Your task to perform on an android device: Open calendar and show me the second week of next month Image 0: 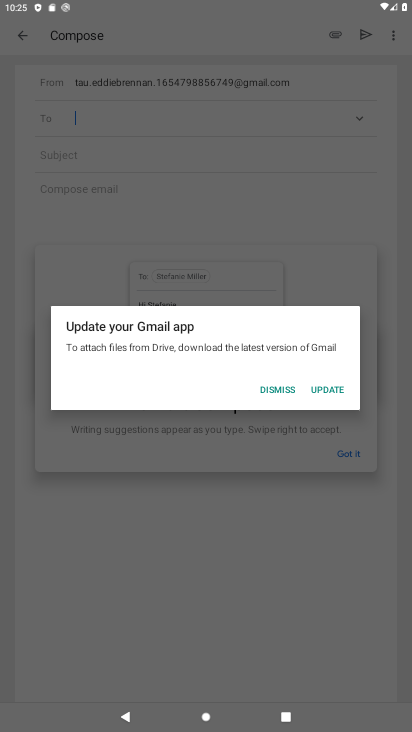
Step 0: click (271, 383)
Your task to perform on an android device: Open calendar and show me the second week of next month Image 1: 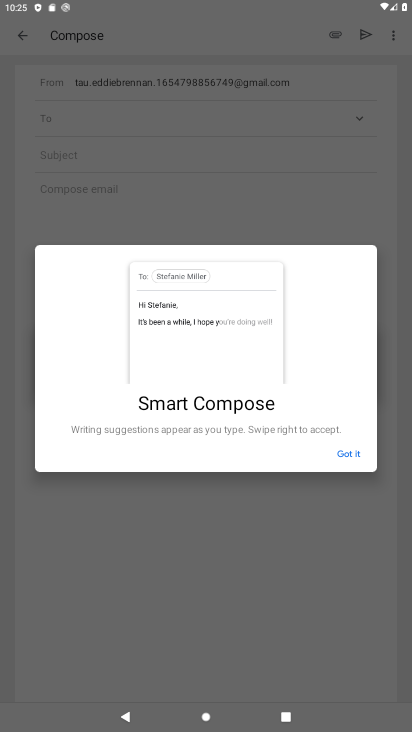
Step 1: click (352, 462)
Your task to perform on an android device: Open calendar and show me the second week of next month Image 2: 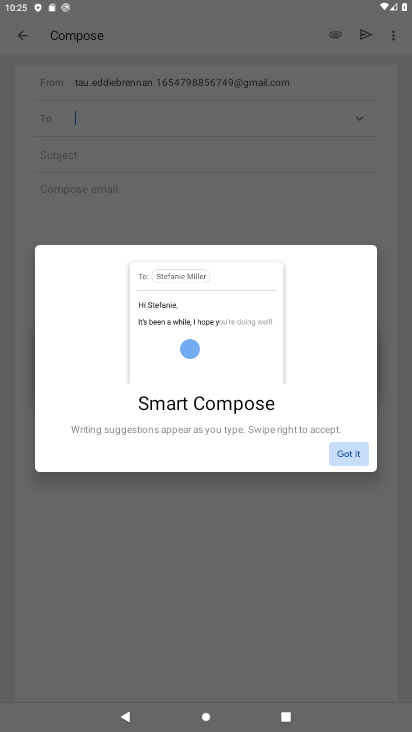
Step 2: click (349, 455)
Your task to perform on an android device: Open calendar and show me the second week of next month Image 3: 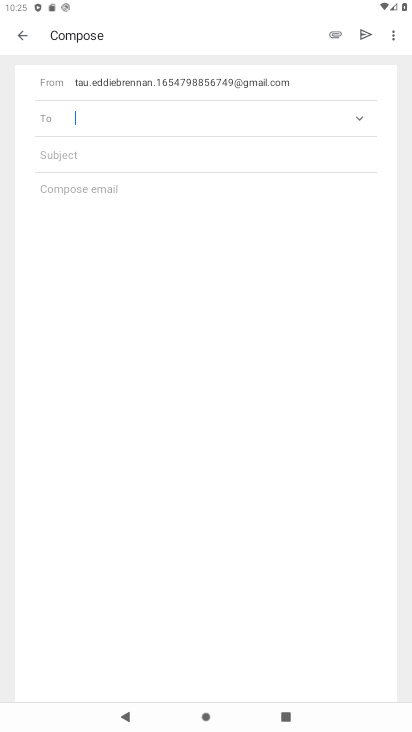
Step 3: click (31, 46)
Your task to perform on an android device: Open calendar and show me the second week of next month Image 4: 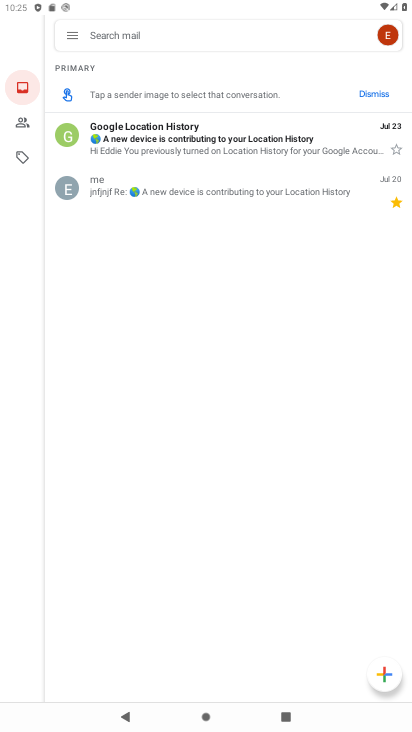
Step 4: press back button
Your task to perform on an android device: Open calendar and show me the second week of next month Image 5: 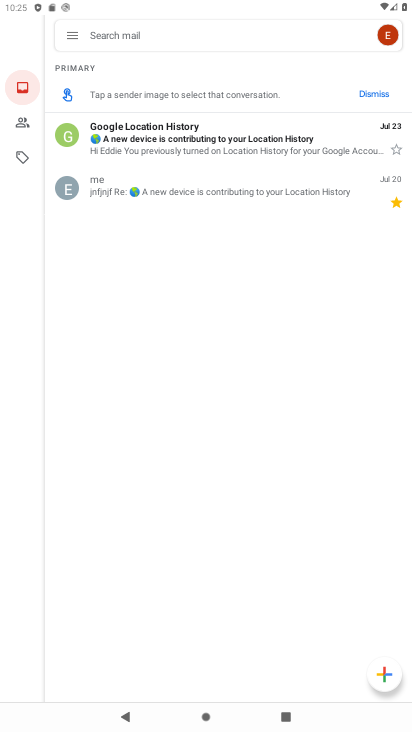
Step 5: press back button
Your task to perform on an android device: Open calendar and show me the second week of next month Image 6: 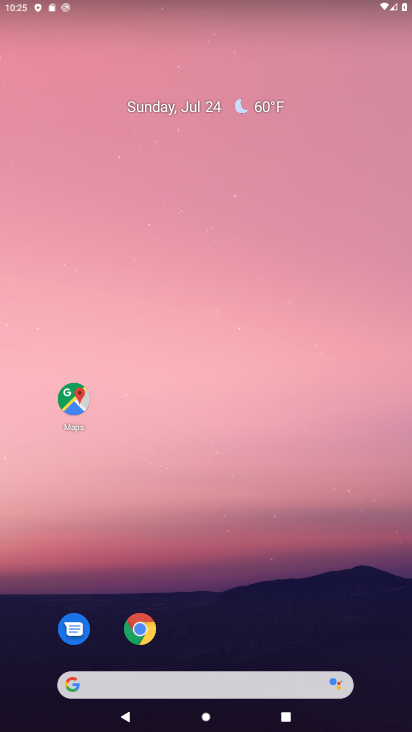
Step 6: drag from (202, 530) to (148, 74)
Your task to perform on an android device: Open calendar and show me the second week of next month Image 7: 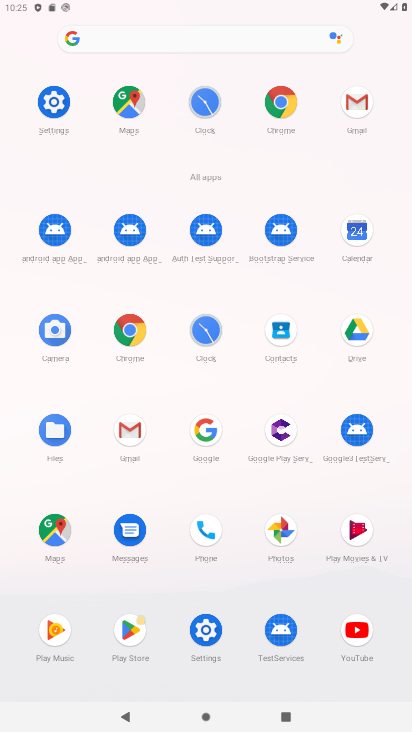
Step 7: click (348, 257)
Your task to perform on an android device: Open calendar and show me the second week of next month Image 8: 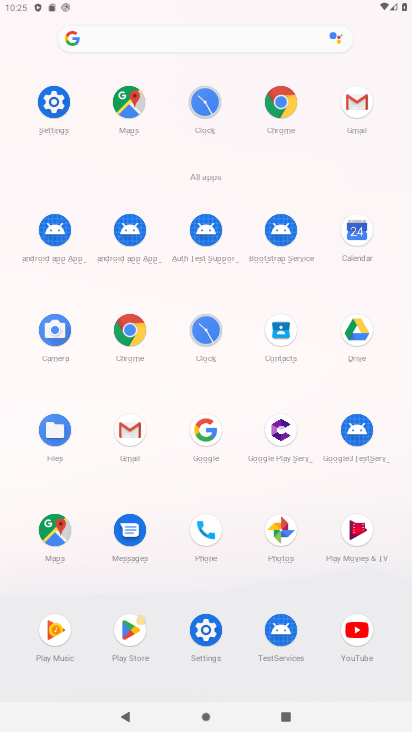
Step 8: click (355, 236)
Your task to perform on an android device: Open calendar and show me the second week of next month Image 9: 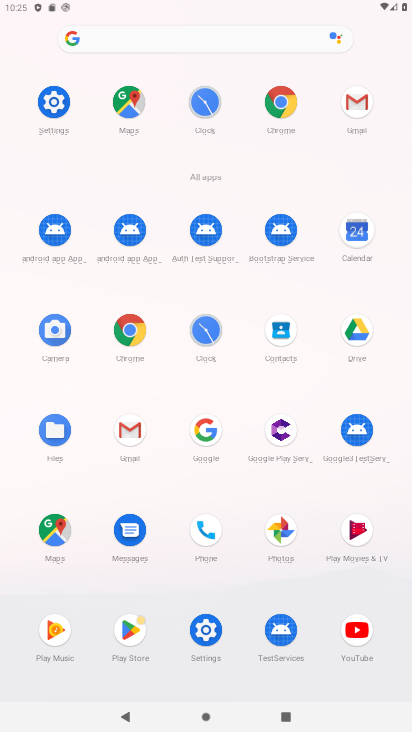
Step 9: click (356, 226)
Your task to perform on an android device: Open calendar and show me the second week of next month Image 10: 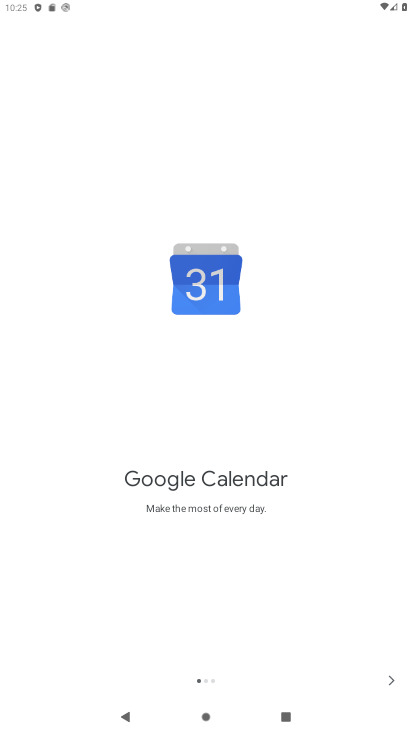
Step 10: click (385, 667)
Your task to perform on an android device: Open calendar and show me the second week of next month Image 11: 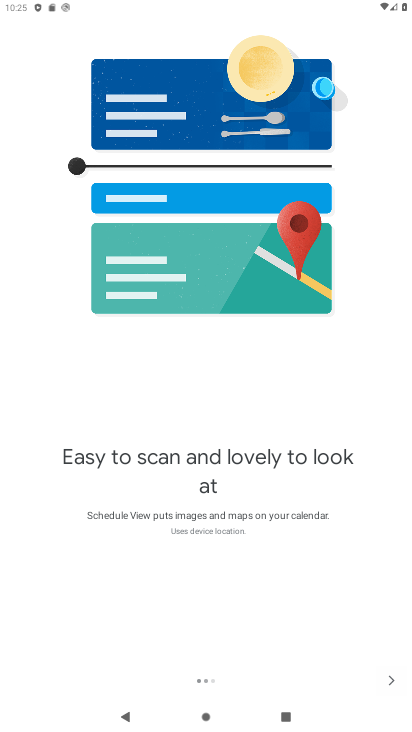
Step 11: click (389, 671)
Your task to perform on an android device: Open calendar and show me the second week of next month Image 12: 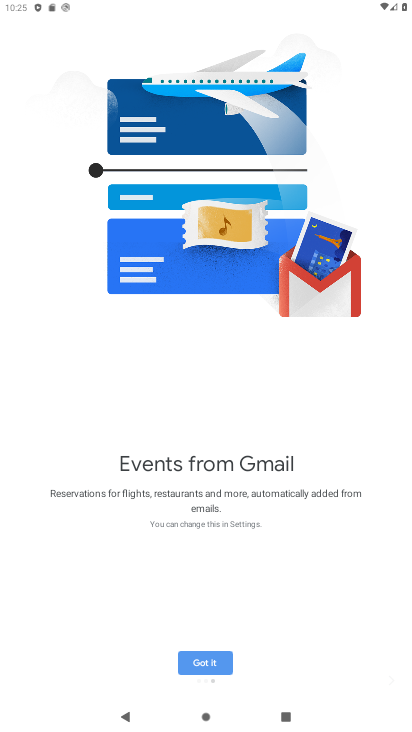
Step 12: click (390, 673)
Your task to perform on an android device: Open calendar and show me the second week of next month Image 13: 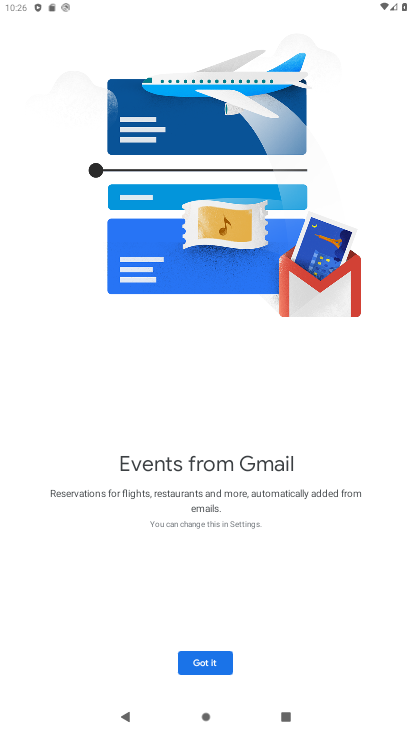
Step 13: click (216, 670)
Your task to perform on an android device: Open calendar and show me the second week of next month Image 14: 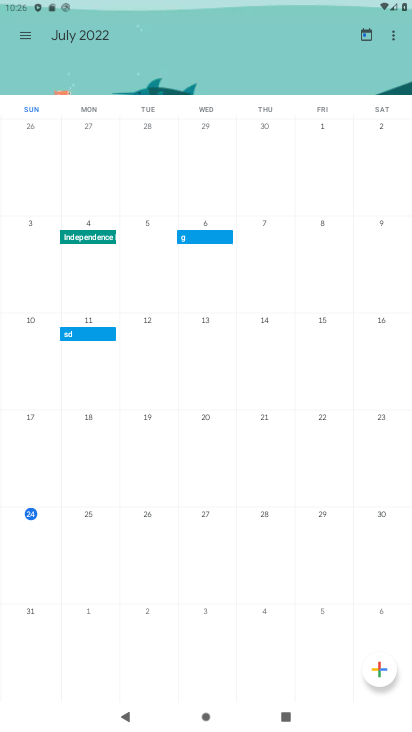
Step 14: drag from (318, 351) to (17, 406)
Your task to perform on an android device: Open calendar and show me the second week of next month Image 15: 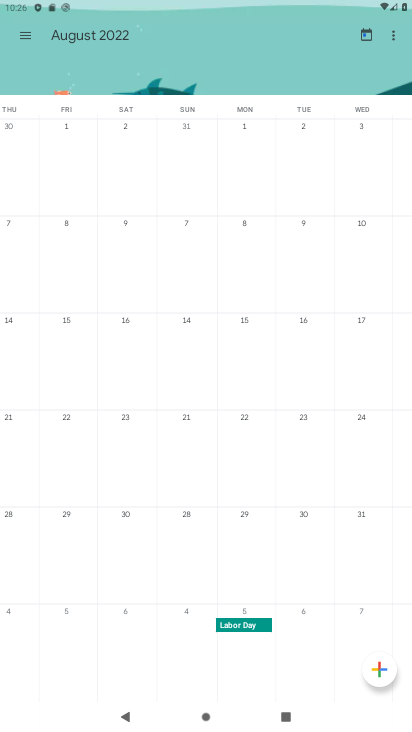
Step 15: drag from (355, 281) to (9, 331)
Your task to perform on an android device: Open calendar and show me the second week of next month Image 16: 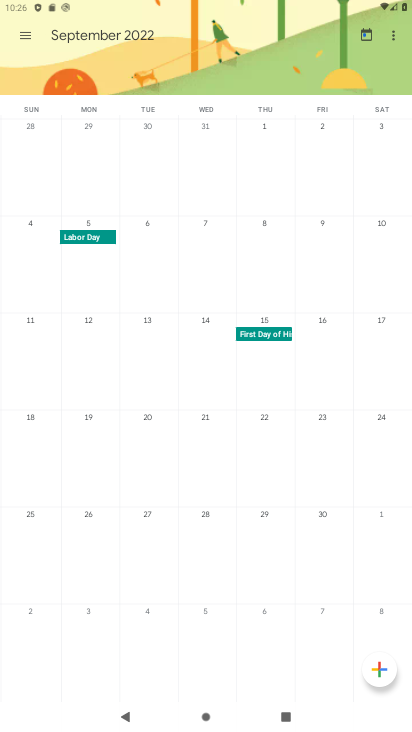
Step 16: drag from (164, 355) to (380, 327)
Your task to perform on an android device: Open calendar and show me the second week of next month Image 17: 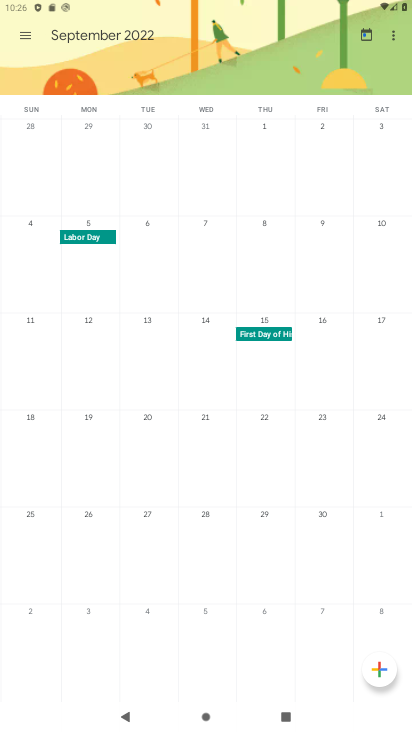
Step 17: drag from (96, 375) to (364, 357)
Your task to perform on an android device: Open calendar and show me the second week of next month Image 18: 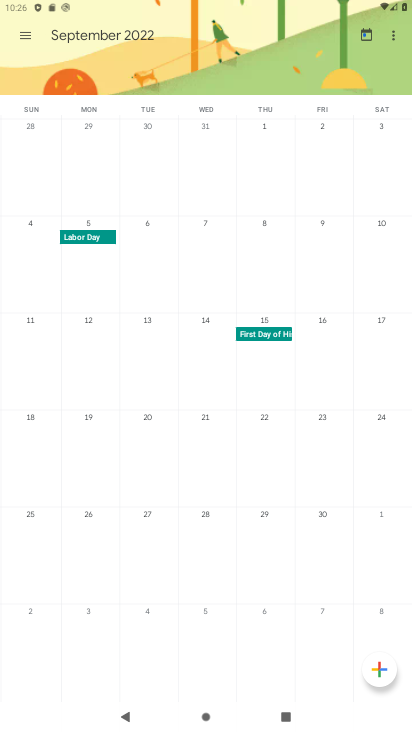
Step 18: click (406, 367)
Your task to perform on an android device: Open calendar and show me the second week of next month Image 19: 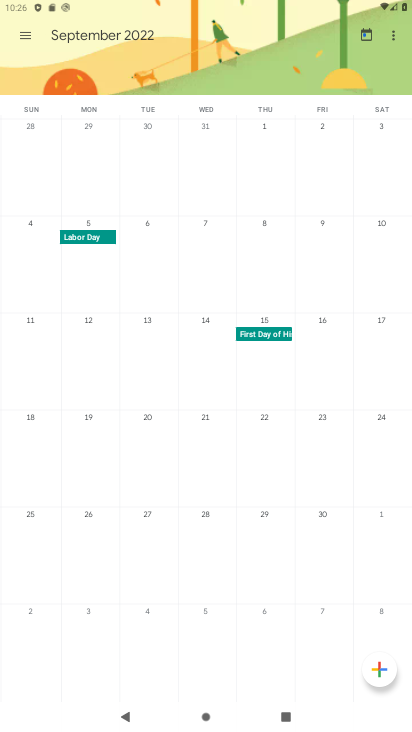
Step 19: drag from (74, 216) to (377, 357)
Your task to perform on an android device: Open calendar and show me the second week of next month Image 20: 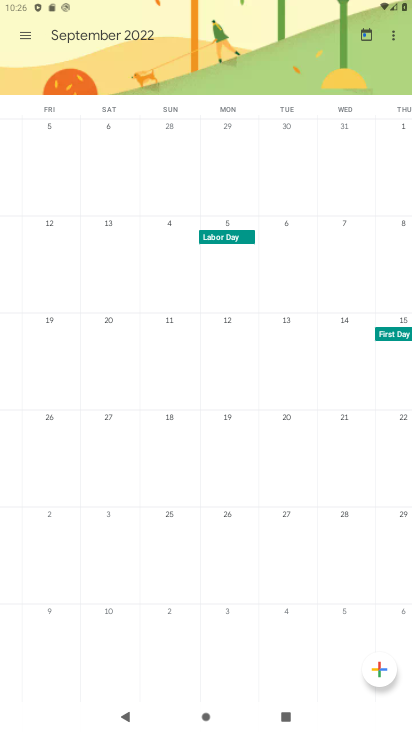
Step 20: drag from (299, 350) to (397, 361)
Your task to perform on an android device: Open calendar and show me the second week of next month Image 21: 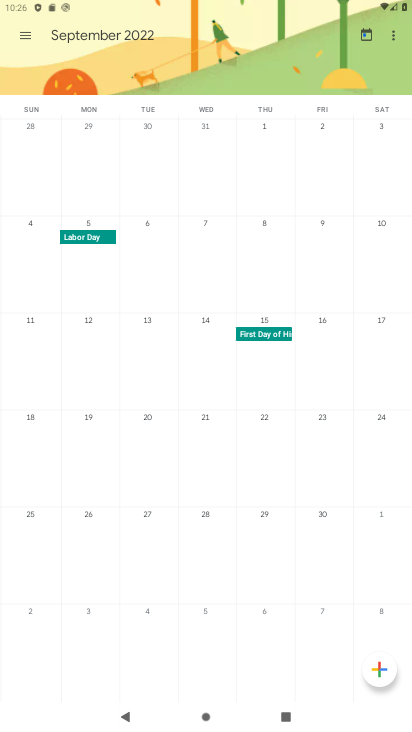
Step 21: drag from (240, 302) to (403, 318)
Your task to perform on an android device: Open calendar and show me the second week of next month Image 22: 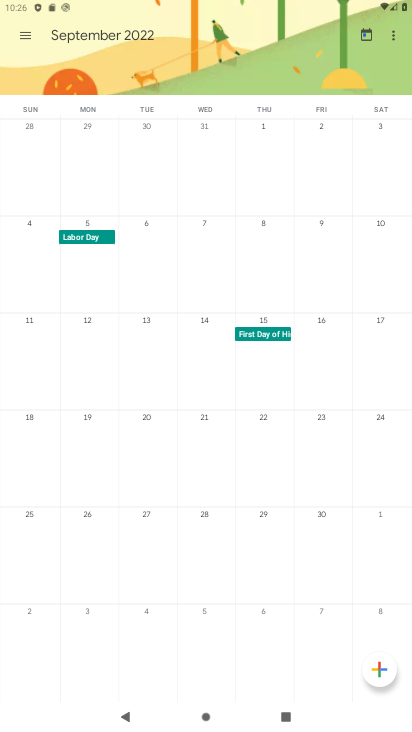
Step 22: drag from (43, 288) to (379, 357)
Your task to perform on an android device: Open calendar and show me the second week of next month Image 23: 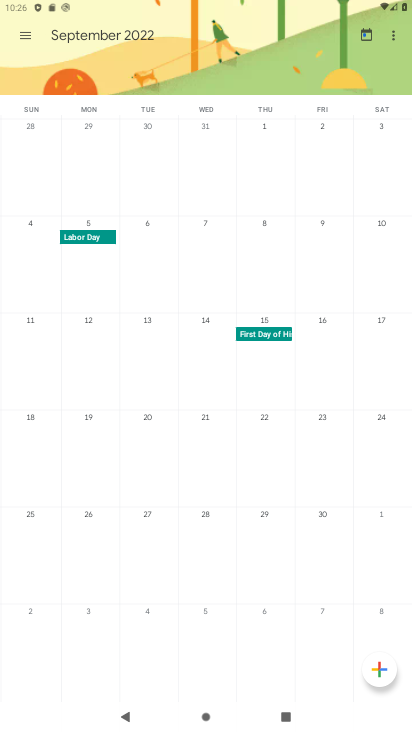
Step 23: drag from (230, 294) to (383, 327)
Your task to perform on an android device: Open calendar and show me the second week of next month Image 24: 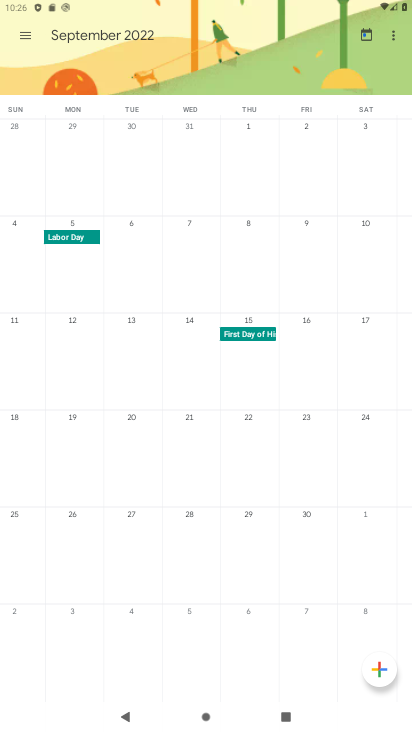
Step 24: drag from (185, 240) to (352, 251)
Your task to perform on an android device: Open calendar and show me the second week of next month Image 25: 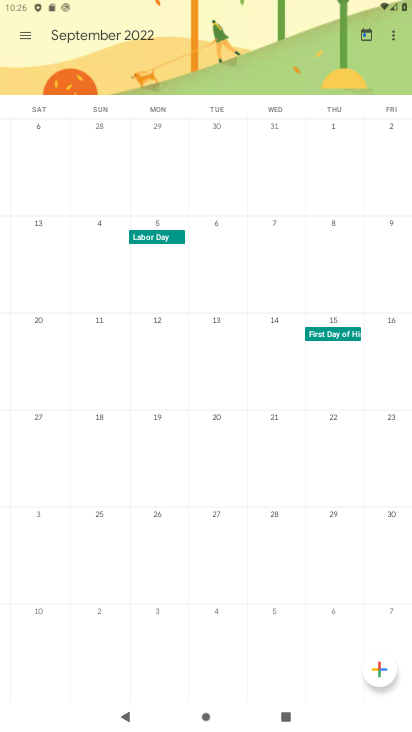
Step 25: drag from (84, 187) to (400, 224)
Your task to perform on an android device: Open calendar and show me the second week of next month Image 26: 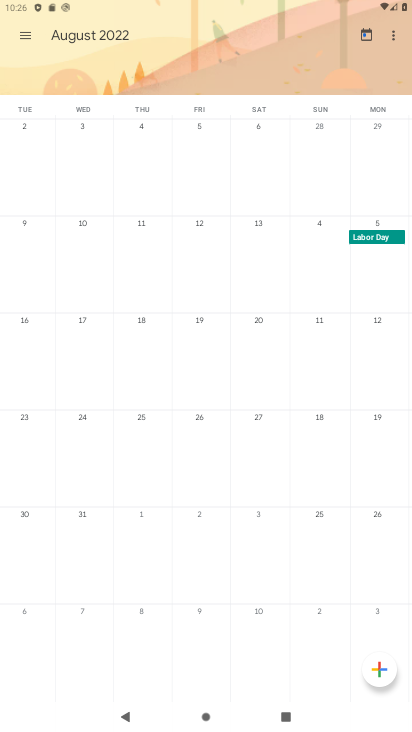
Step 26: drag from (73, 256) to (403, 366)
Your task to perform on an android device: Open calendar and show me the second week of next month Image 27: 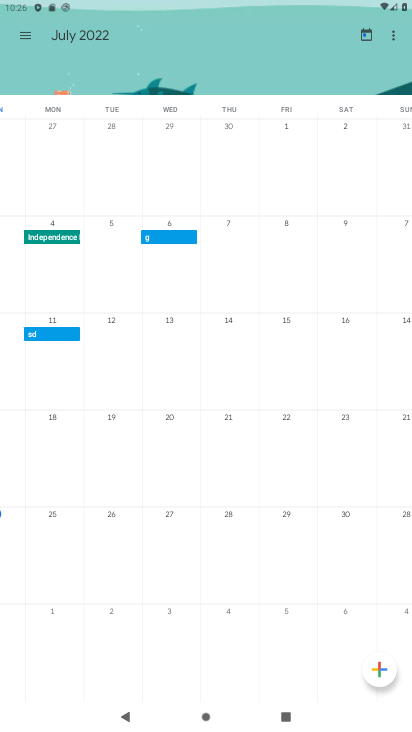
Step 27: drag from (405, 350) to (410, 272)
Your task to perform on an android device: Open calendar and show me the second week of next month Image 28: 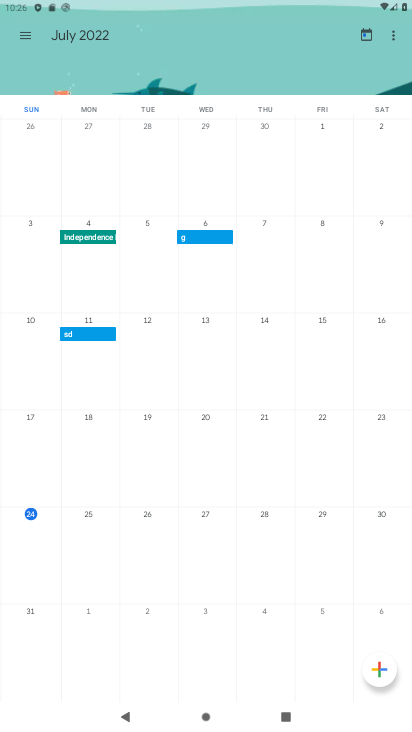
Step 28: click (23, 242)
Your task to perform on an android device: Open calendar and show me the second week of next month Image 29: 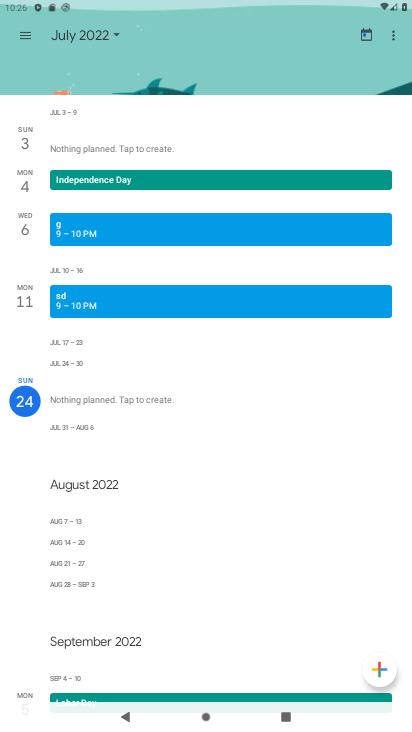
Step 29: click (111, 30)
Your task to perform on an android device: Open calendar and show me the second week of next month Image 30: 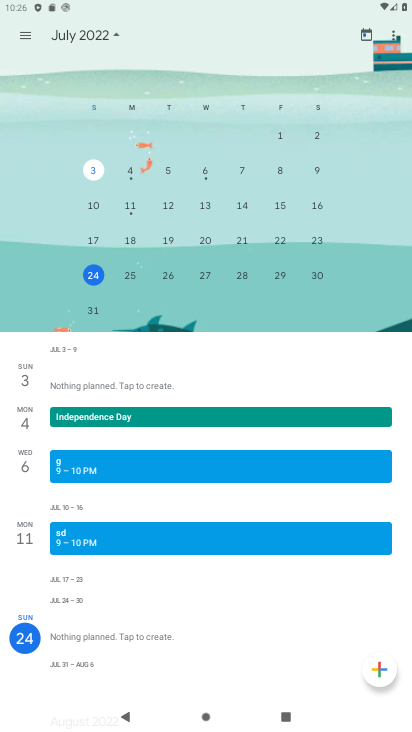
Step 30: drag from (260, 258) to (46, 319)
Your task to perform on an android device: Open calendar and show me the second week of next month Image 31: 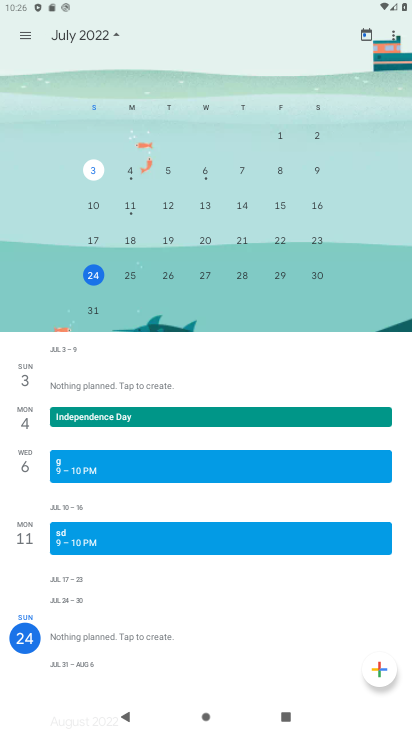
Step 31: drag from (81, 203) to (4, 169)
Your task to perform on an android device: Open calendar and show me the second week of next month Image 32: 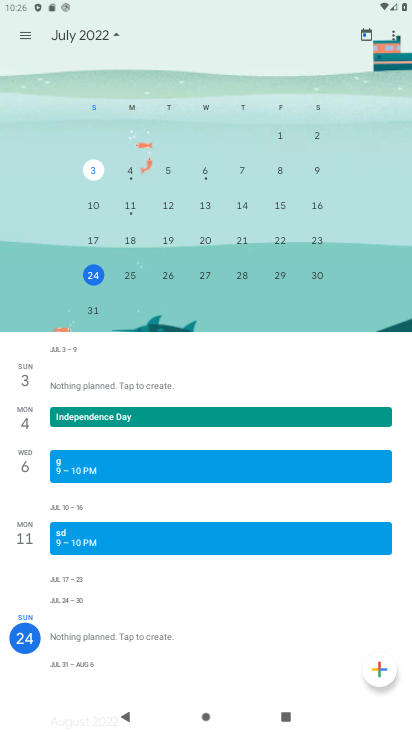
Step 32: drag from (197, 222) to (105, 153)
Your task to perform on an android device: Open calendar and show me the second week of next month Image 33: 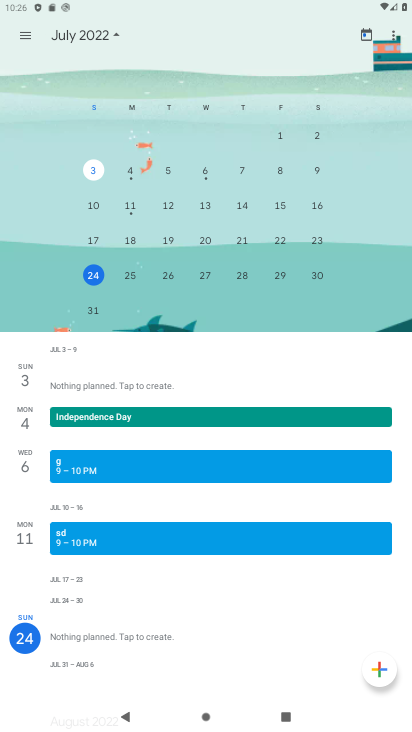
Step 33: drag from (231, 199) to (3, 158)
Your task to perform on an android device: Open calendar and show me the second week of next month Image 34: 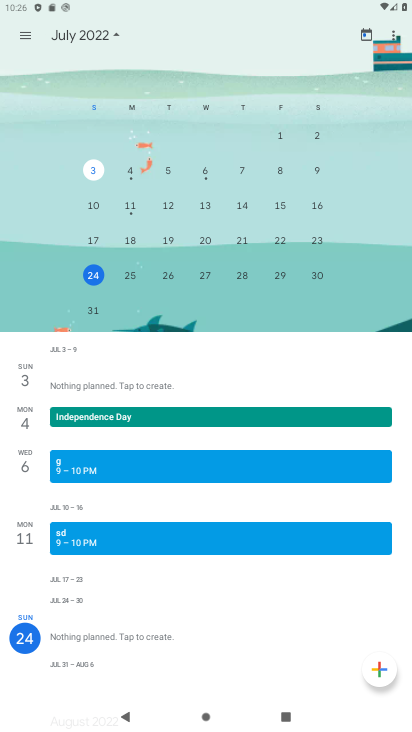
Step 34: drag from (279, 214) to (30, 118)
Your task to perform on an android device: Open calendar and show me the second week of next month Image 35: 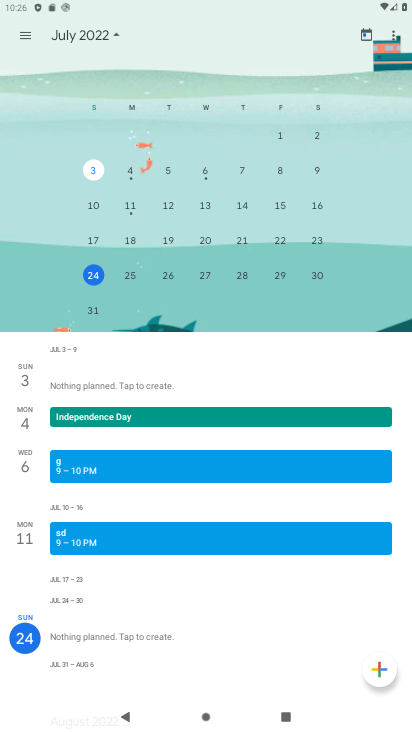
Step 35: drag from (261, 223) to (6, 197)
Your task to perform on an android device: Open calendar and show me the second week of next month Image 36: 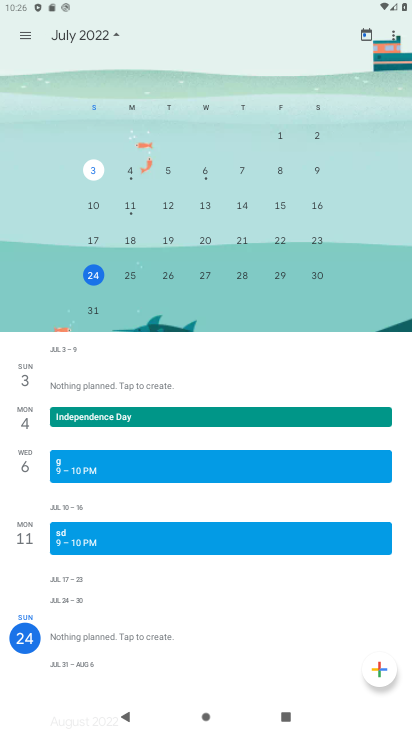
Step 36: drag from (315, 199) to (3, 174)
Your task to perform on an android device: Open calendar and show me the second week of next month Image 37: 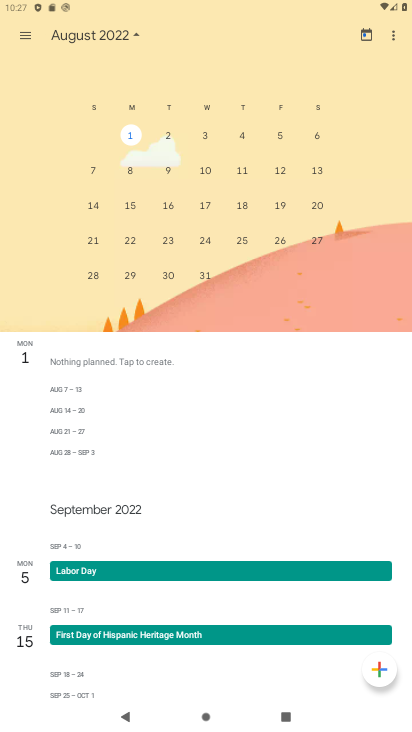
Step 37: click (161, 164)
Your task to perform on an android device: Open calendar and show me the second week of next month Image 38: 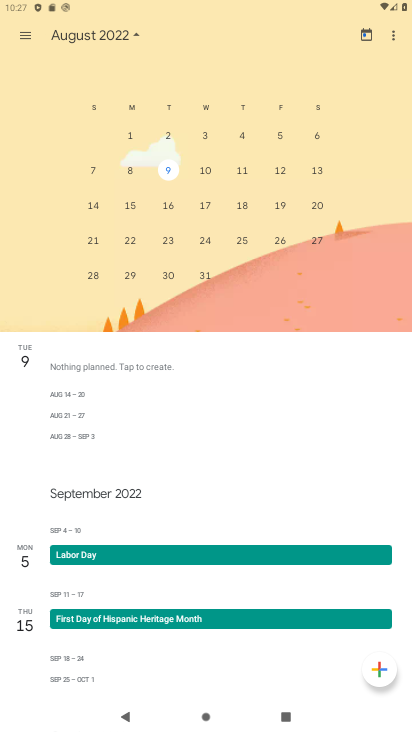
Step 38: click (159, 162)
Your task to perform on an android device: Open calendar and show me the second week of next month Image 39: 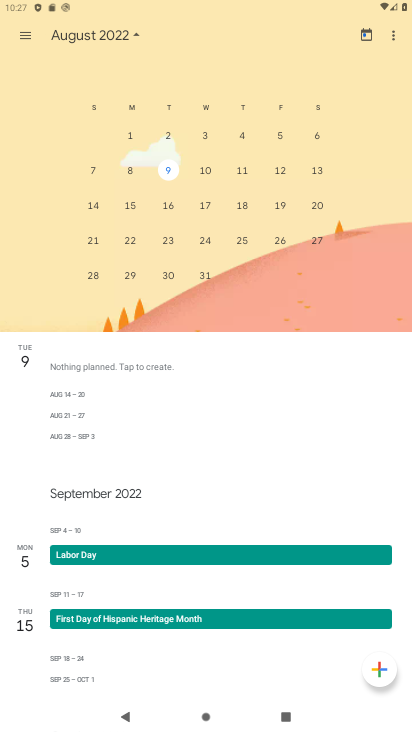
Step 39: click (161, 159)
Your task to perform on an android device: Open calendar and show me the second week of next month Image 40: 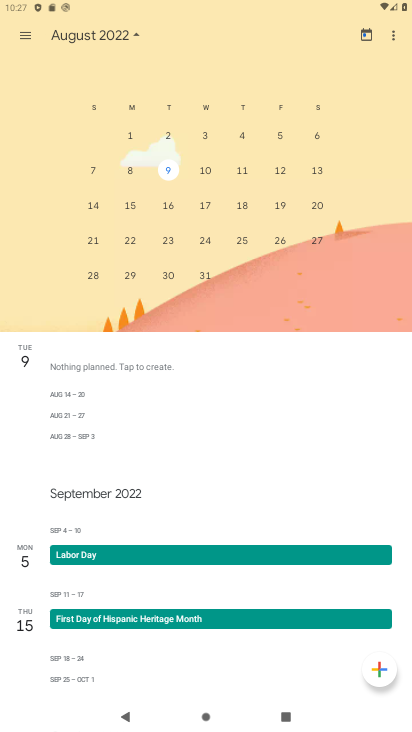
Step 40: task complete